Your task to perform on an android device: set the timer Image 0: 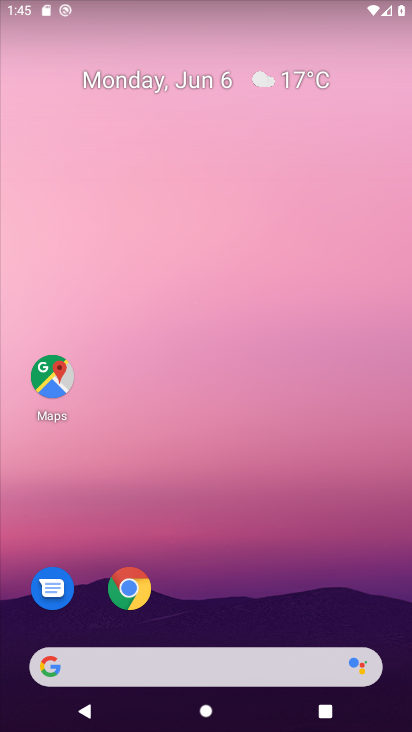
Step 0: click (132, 581)
Your task to perform on an android device: set the timer Image 1: 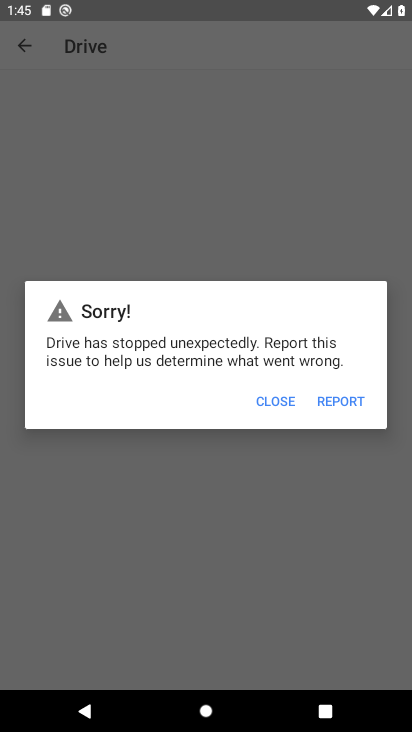
Step 1: click (265, 398)
Your task to perform on an android device: set the timer Image 2: 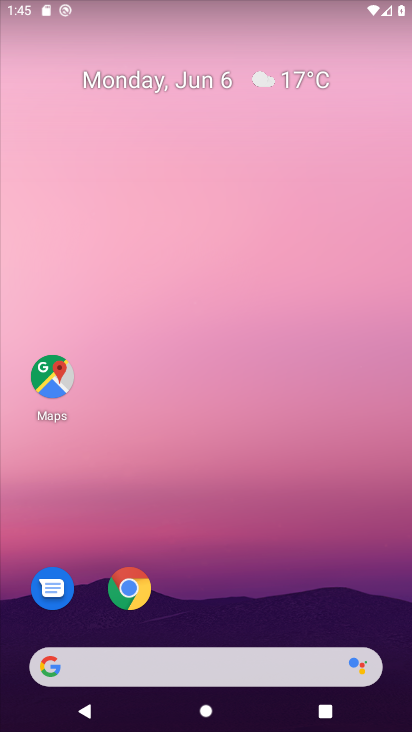
Step 2: drag from (226, 606) to (286, 72)
Your task to perform on an android device: set the timer Image 3: 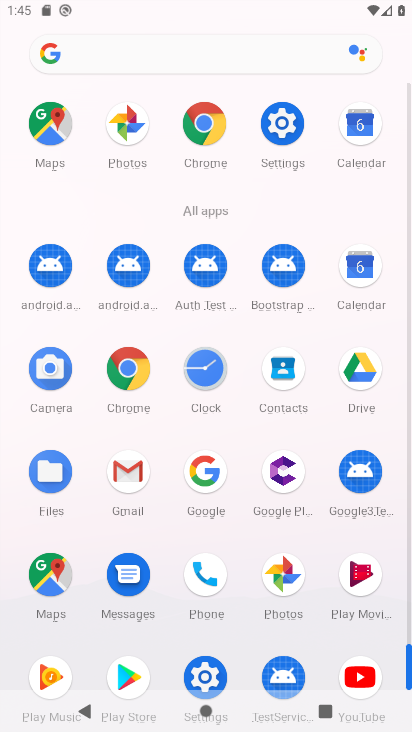
Step 3: click (200, 390)
Your task to perform on an android device: set the timer Image 4: 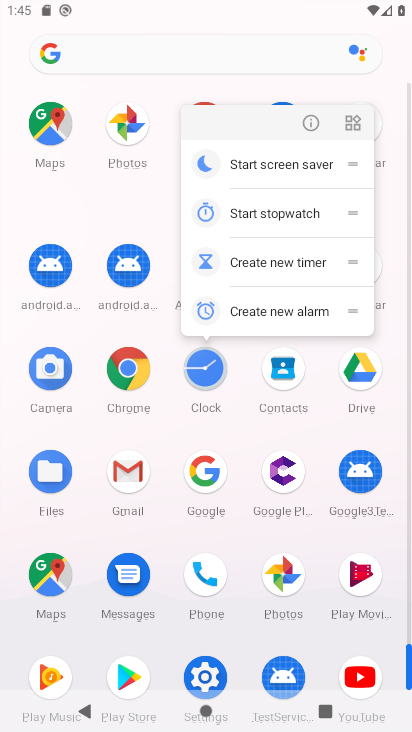
Step 4: click (200, 376)
Your task to perform on an android device: set the timer Image 5: 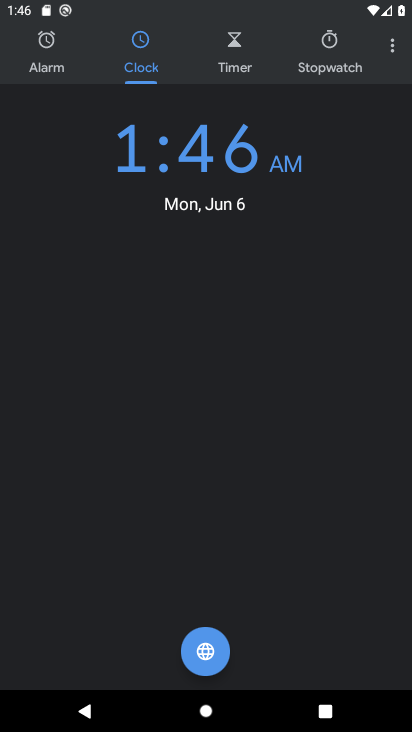
Step 5: click (237, 64)
Your task to perform on an android device: set the timer Image 6: 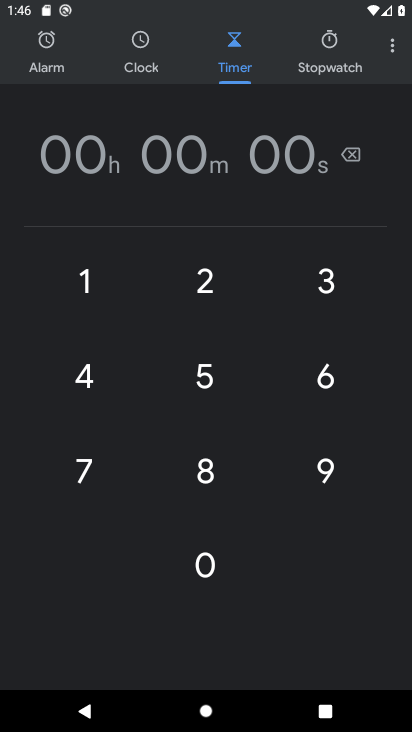
Step 6: click (201, 290)
Your task to perform on an android device: set the timer Image 7: 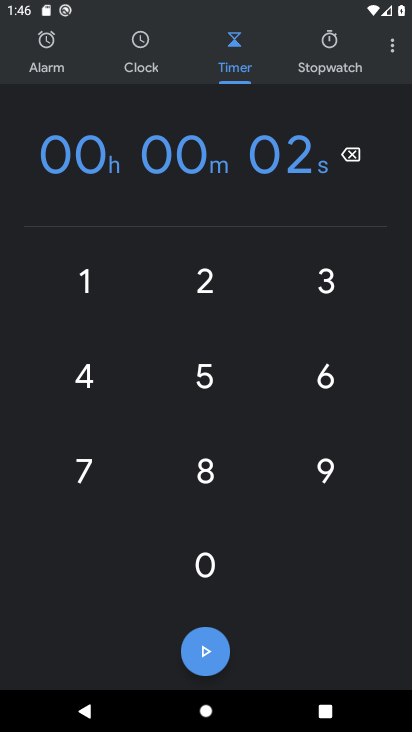
Step 7: click (217, 563)
Your task to perform on an android device: set the timer Image 8: 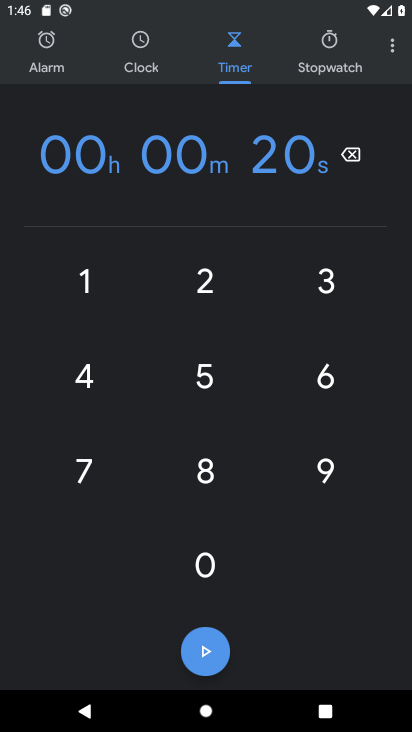
Step 8: click (203, 284)
Your task to perform on an android device: set the timer Image 9: 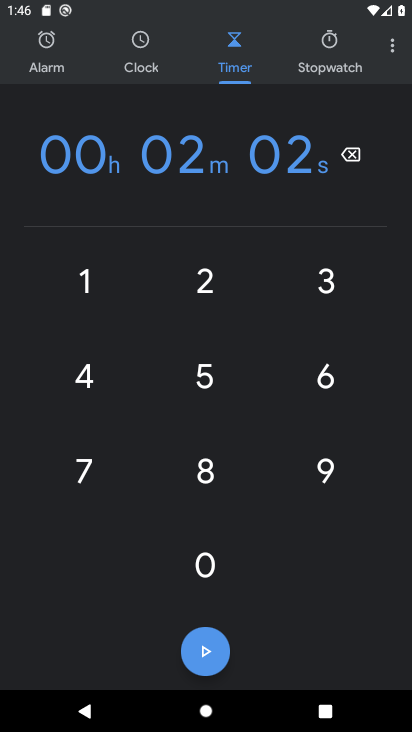
Step 9: click (215, 576)
Your task to perform on an android device: set the timer Image 10: 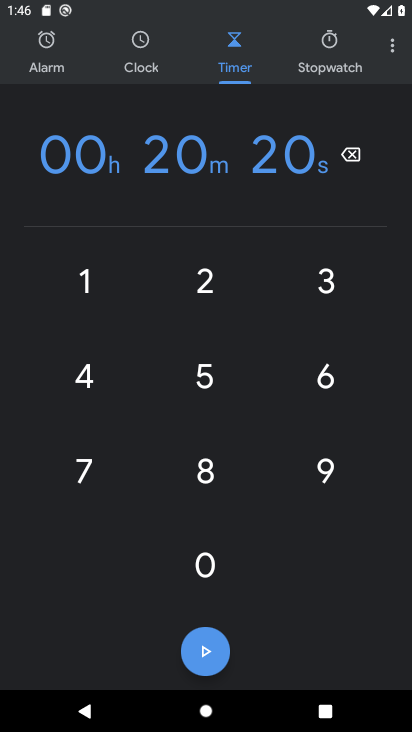
Step 10: click (201, 655)
Your task to perform on an android device: set the timer Image 11: 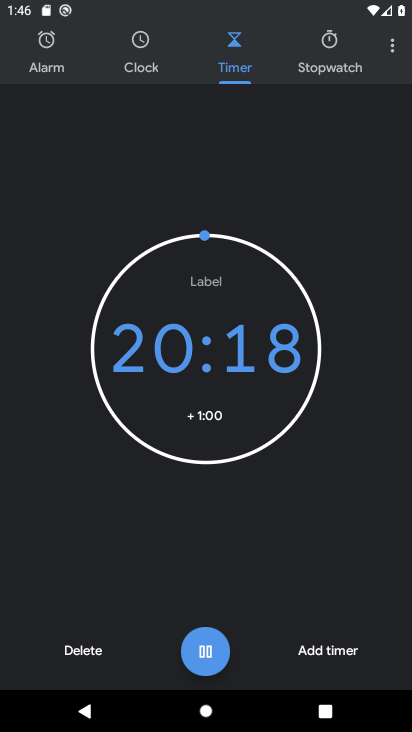
Step 11: click (311, 659)
Your task to perform on an android device: set the timer Image 12: 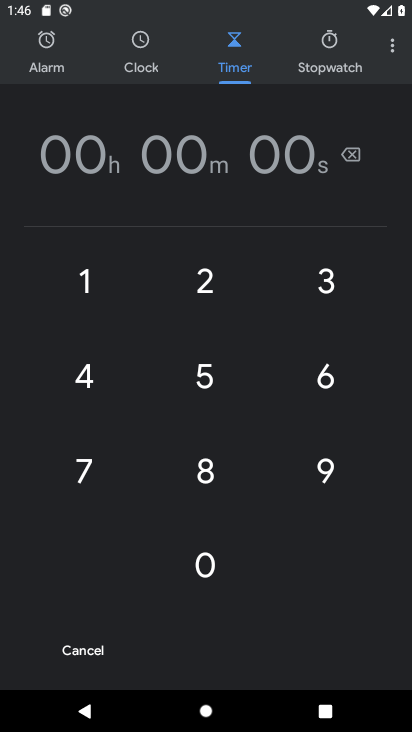
Step 12: task complete